Your task to perform on an android device: change text size in settings app Image 0: 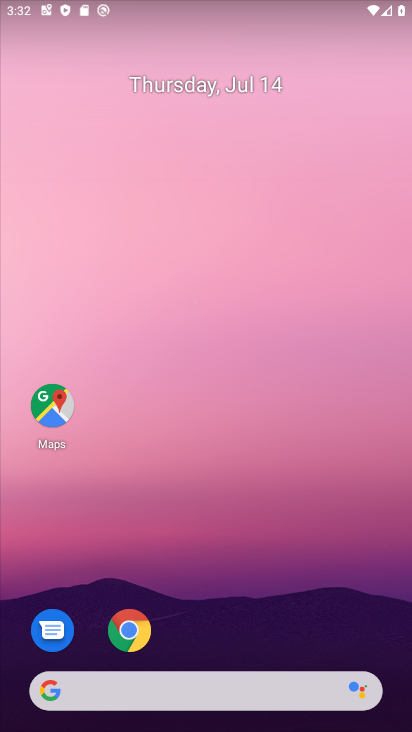
Step 0: drag from (202, 722) to (185, 192)
Your task to perform on an android device: change text size in settings app Image 1: 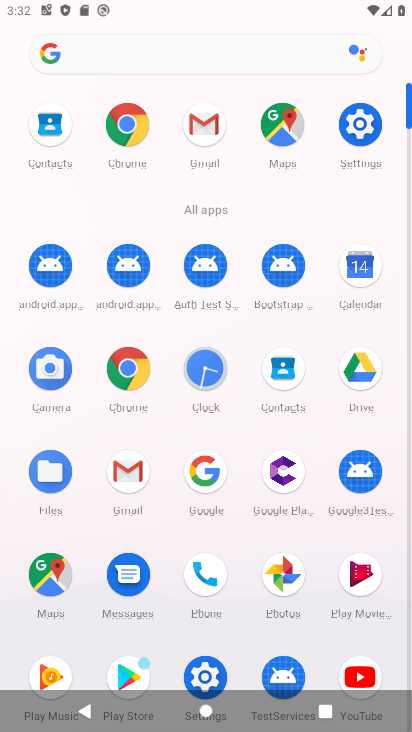
Step 1: click (357, 123)
Your task to perform on an android device: change text size in settings app Image 2: 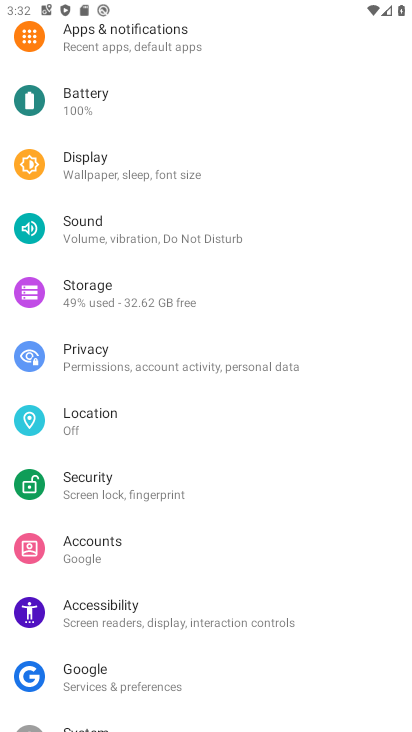
Step 2: click (158, 175)
Your task to perform on an android device: change text size in settings app Image 3: 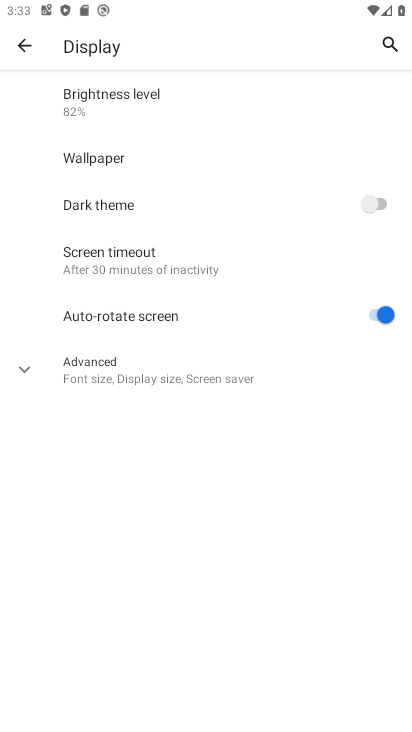
Step 3: click (160, 382)
Your task to perform on an android device: change text size in settings app Image 4: 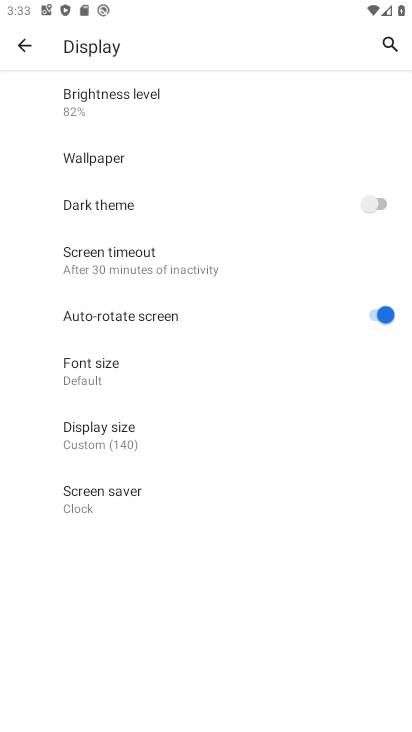
Step 4: click (68, 366)
Your task to perform on an android device: change text size in settings app Image 5: 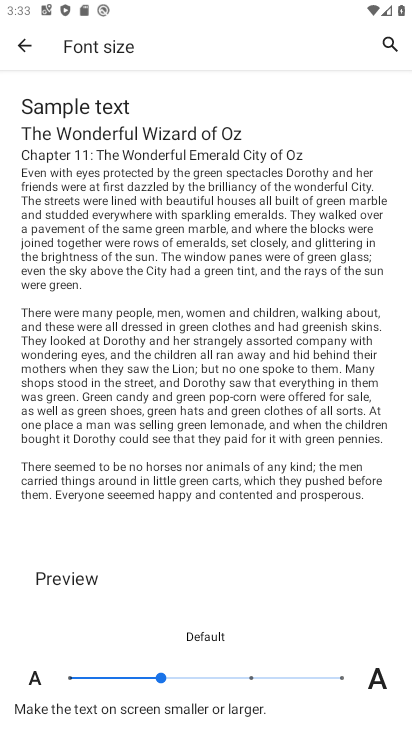
Step 5: click (248, 680)
Your task to perform on an android device: change text size in settings app Image 6: 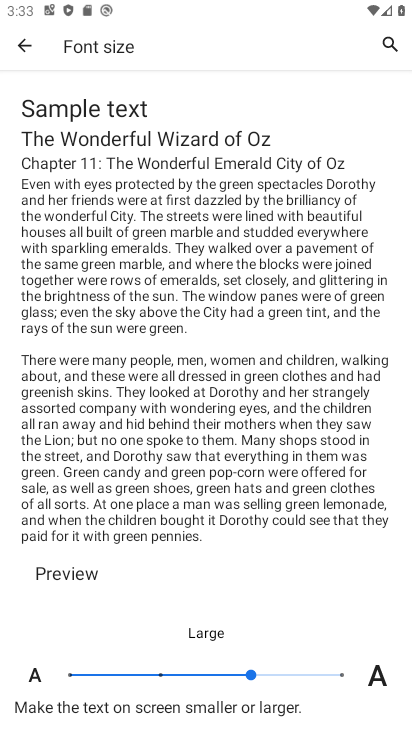
Step 6: task complete